Your task to perform on an android device: turn off airplane mode Image 0: 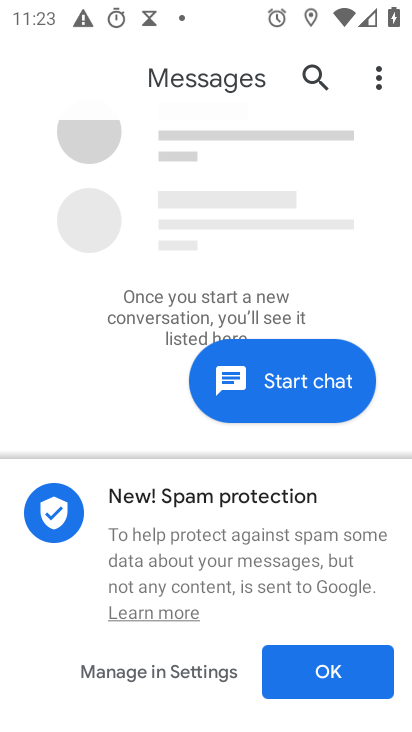
Step 0: press home button
Your task to perform on an android device: turn off airplane mode Image 1: 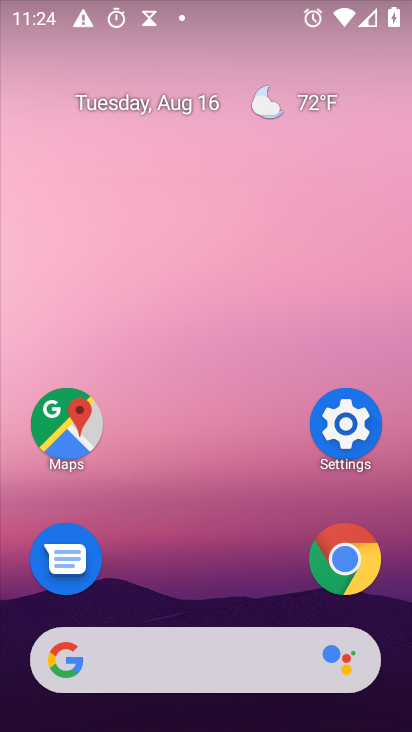
Step 1: click (340, 438)
Your task to perform on an android device: turn off airplane mode Image 2: 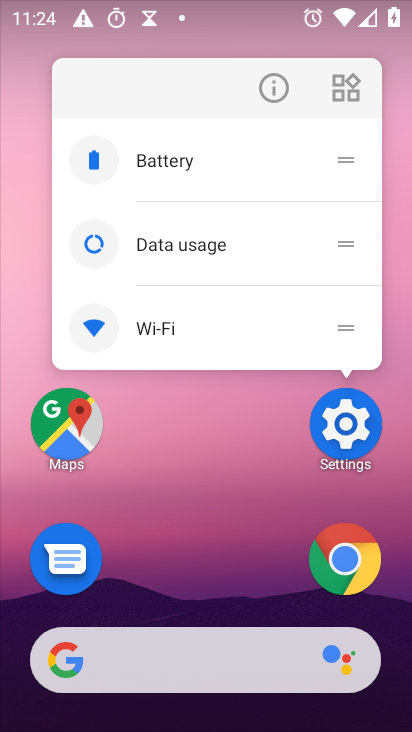
Step 2: click (341, 430)
Your task to perform on an android device: turn off airplane mode Image 3: 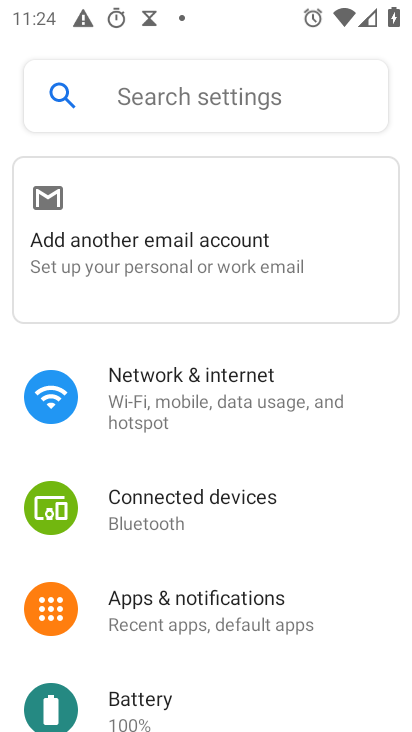
Step 3: click (254, 397)
Your task to perform on an android device: turn off airplane mode Image 4: 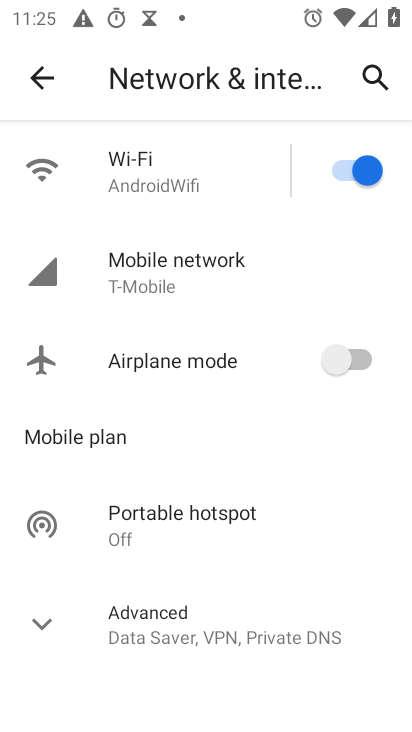
Step 4: task complete